Your task to perform on an android device: turn on data saver in the chrome app Image 0: 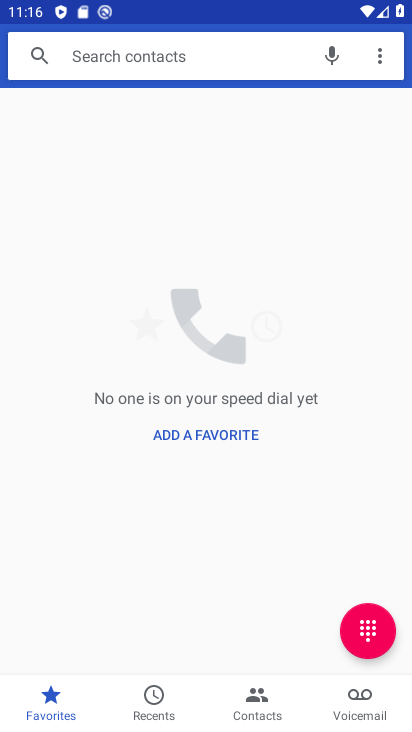
Step 0: press home button
Your task to perform on an android device: turn on data saver in the chrome app Image 1: 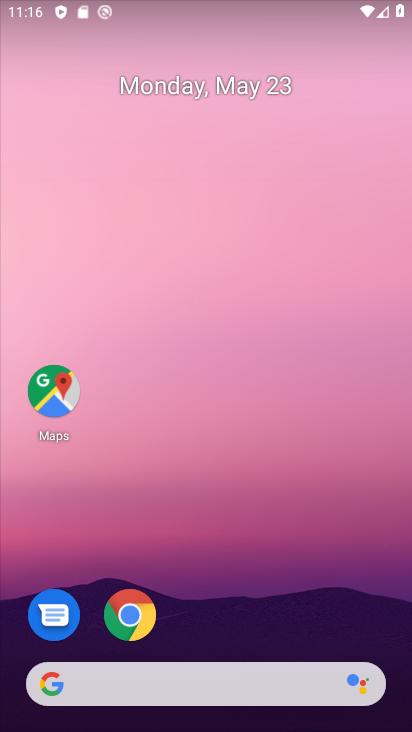
Step 1: click (131, 615)
Your task to perform on an android device: turn on data saver in the chrome app Image 2: 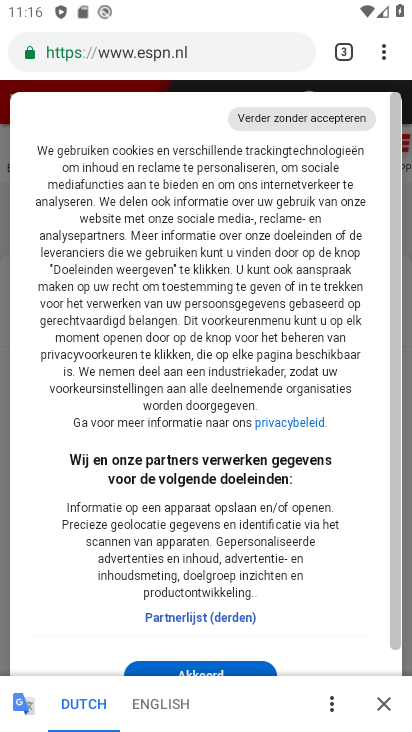
Step 2: click (399, 57)
Your task to perform on an android device: turn on data saver in the chrome app Image 3: 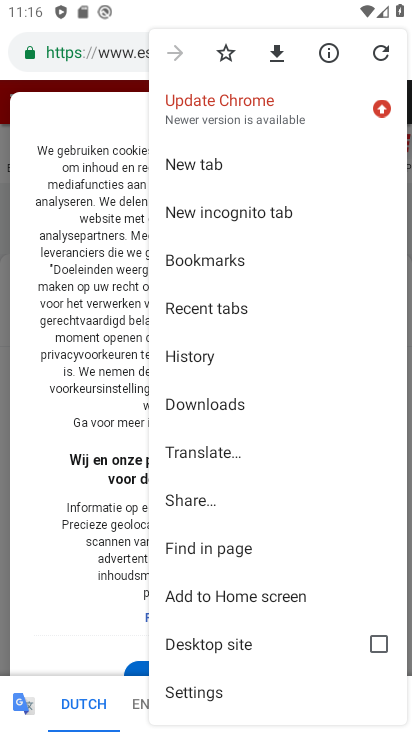
Step 3: click (197, 693)
Your task to perform on an android device: turn on data saver in the chrome app Image 4: 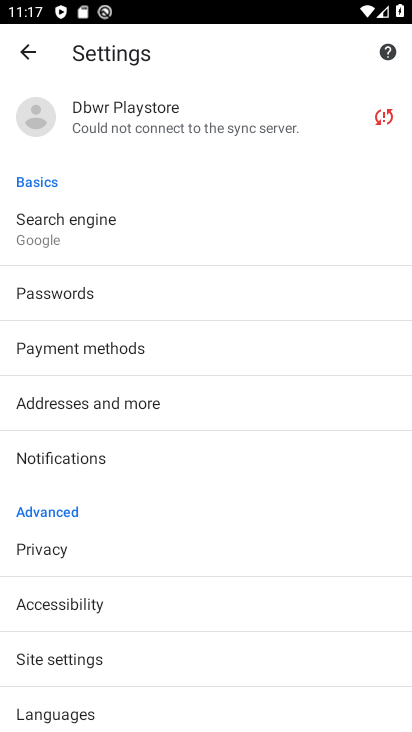
Step 4: drag from (87, 716) to (217, 170)
Your task to perform on an android device: turn on data saver in the chrome app Image 5: 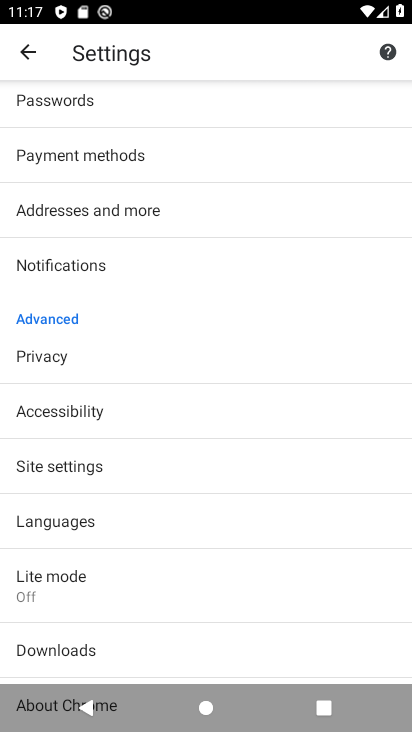
Step 5: click (111, 568)
Your task to perform on an android device: turn on data saver in the chrome app Image 6: 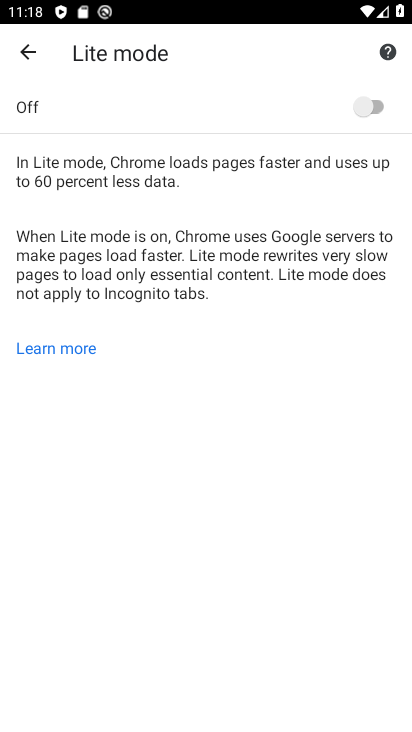
Step 6: click (369, 111)
Your task to perform on an android device: turn on data saver in the chrome app Image 7: 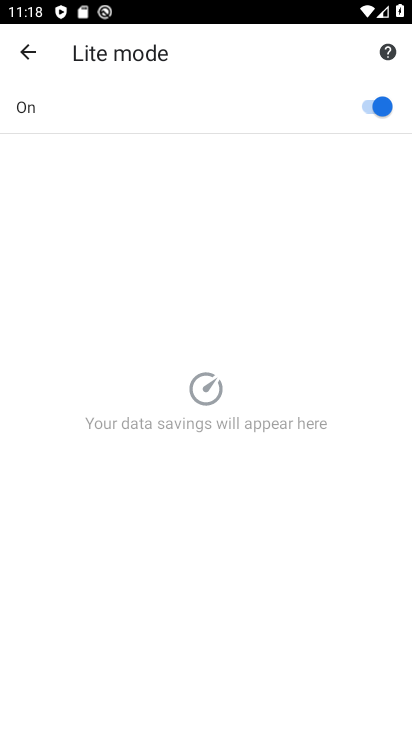
Step 7: task complete